Your task to perform on an android device: Search for 24"x36" picture frame on Home Depot. Image 0: 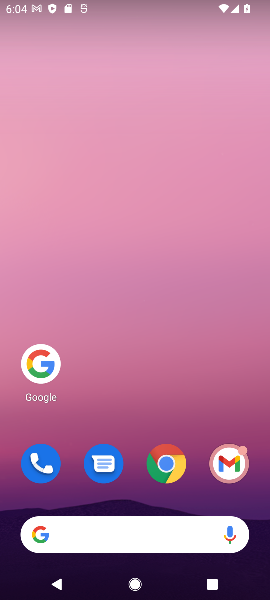
Step 0: click (37, 355)
Your task to perform on an android device: Search for 24"x36" picture frame on Home Depot. Image 1: 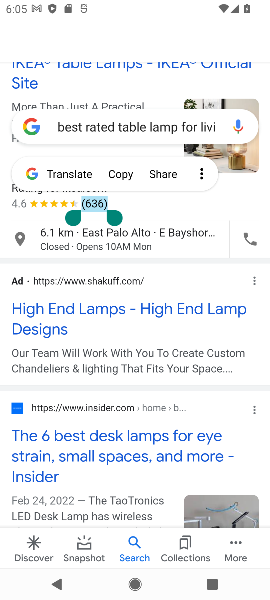
Step 1: click (117, 118)
Your task to perform on an android device: Search for 24"x36" picture frame on Home Depot. Image 2: 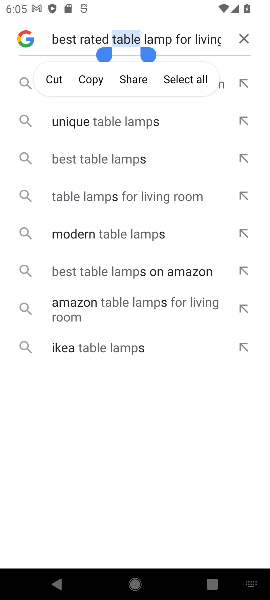
Step 2: click (248, 31)
Your task to perform on an android device: Search for 24"x36" picture frame on Home Depot. Image 3: 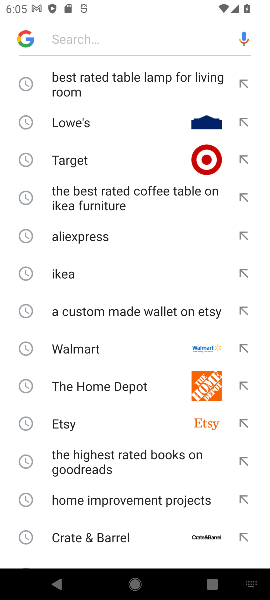
Step 3: click (103, 27)
Your task to perform on an android device: Search for 24"x36" picture frame on Home Depot. Image 4: 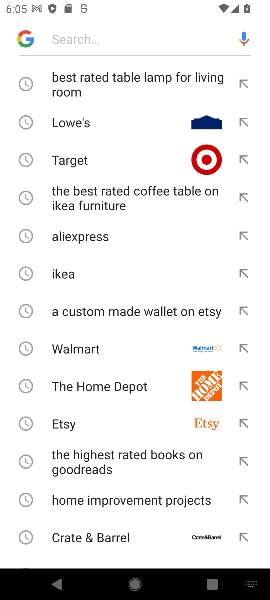
Step 4: type " 24"x36" picture frame on Home Depot "
Your task to perform on an android device: Search for 24"x36" picture frame on Home Depot. Image 5: 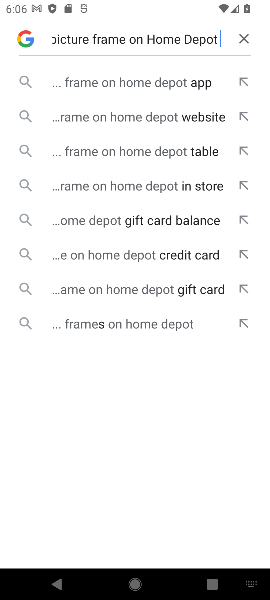
Step 5: click (144, 80)
Your task to perform on an android device: Search for 24"x36" picture frame on Home Depot. Image 6: 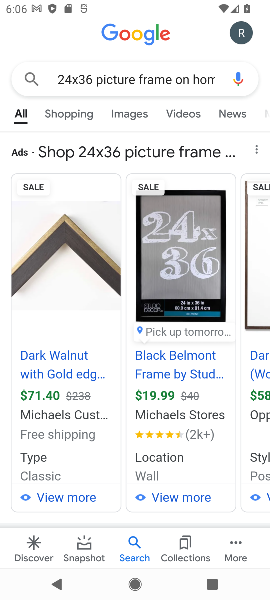
Step 6: drag from (99, 528) to (97, 218)
Your task to perform on an android device: Search for 24"x36" picture frame on Home Depot. Image 7: 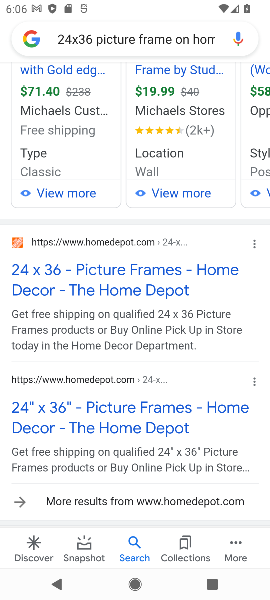
Step 7: click (99, 273)
Your task to perform on an android device: Search for 24"x36" picture frame on Home Depot. Image 8: 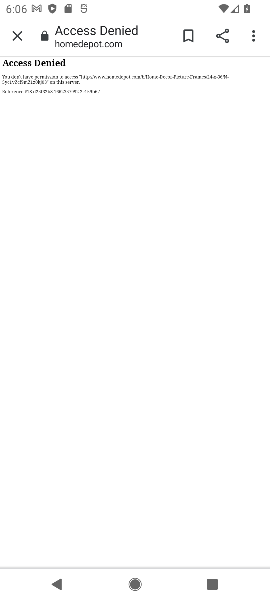
Step 8: click (8, 33)
Your task to perform on an android device: Search for 24"x36" picture frame on Home Depot. Image 9: 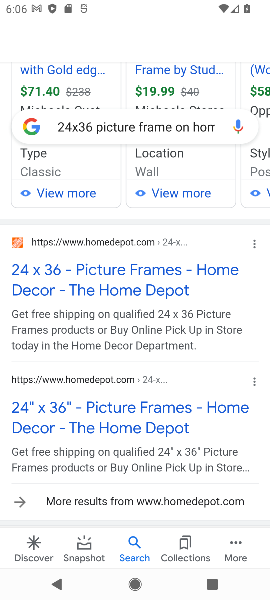
Step 9: task complete